Your task to perform on an android device: Open eBay Image 0: 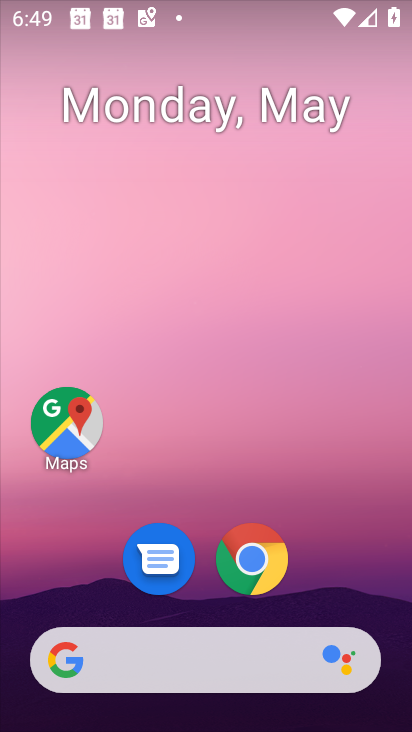
Step 0: drag from (395, 672) to (411, 217)
Your task to perform on an android device: Open eBay Image 1: 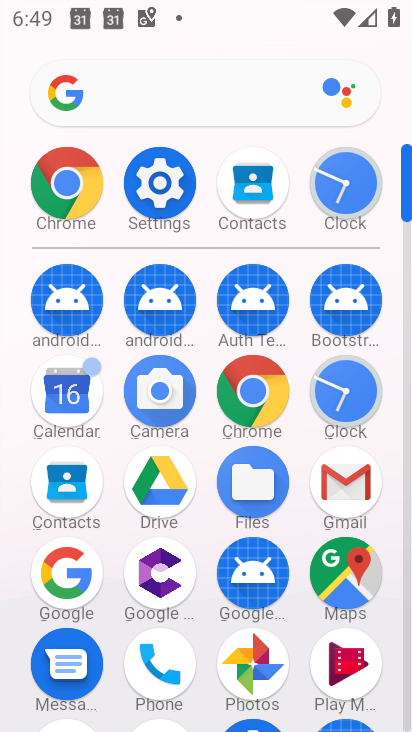
Step 1: click (75, 204)
Your task to perform on an android device: Open eBay Image 2: 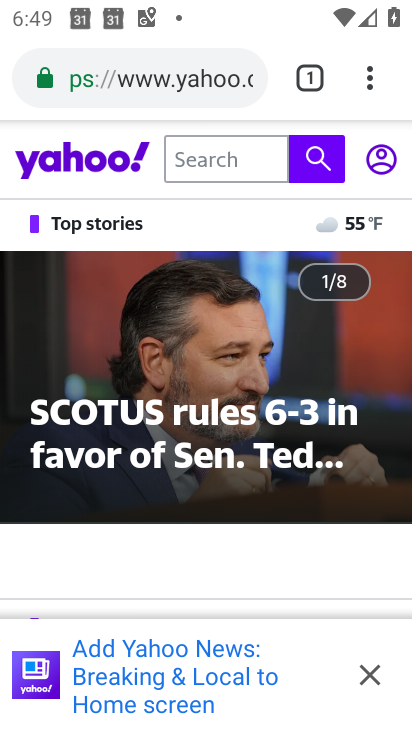
Step 2: press back button
Your task to perform on an android device: Open eBay Image 3: 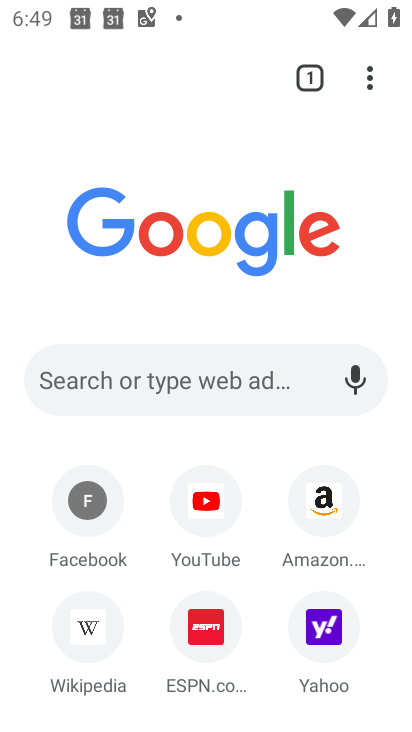
Step 3: click (149, 394)
Your task to perform on an android device: Open eBay Image 4: 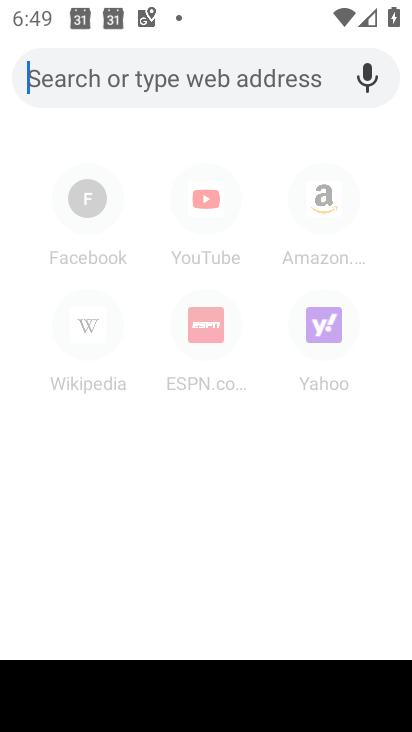
Step 4: type "ebay"
Your task to perform on an android device: Open eBay Image 5: 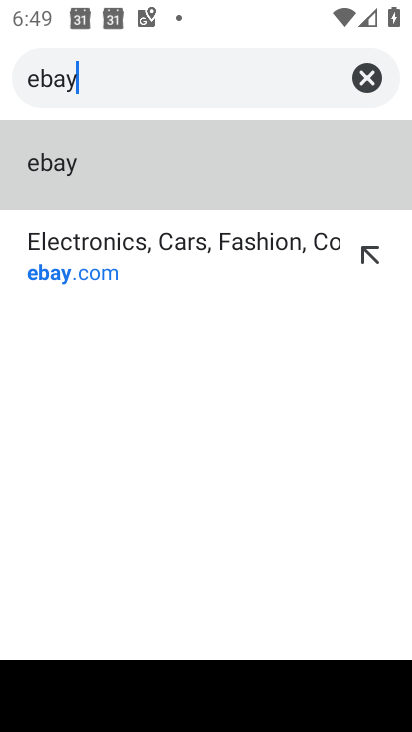
Step 5: click (217, 181)
Your task to perform on an android device: Open eBay Image 6: 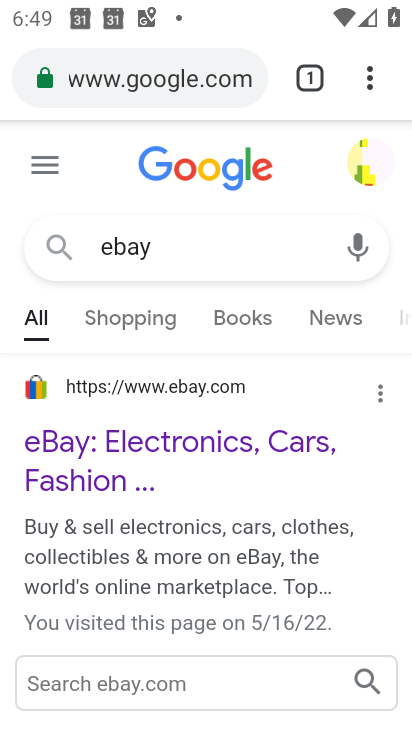
Step 6: task complete